Your task to perform on an android device: add a label to a message in the gmail app Image 0: 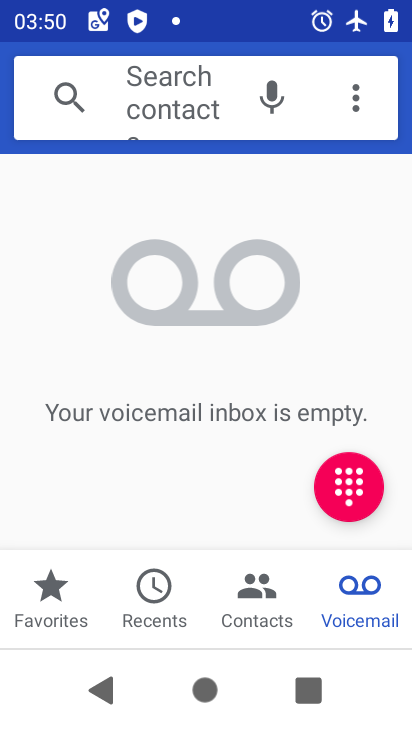
Step 0: press home button
Your task to perform on an android device: add a label to a message in the gmail app Image 1: 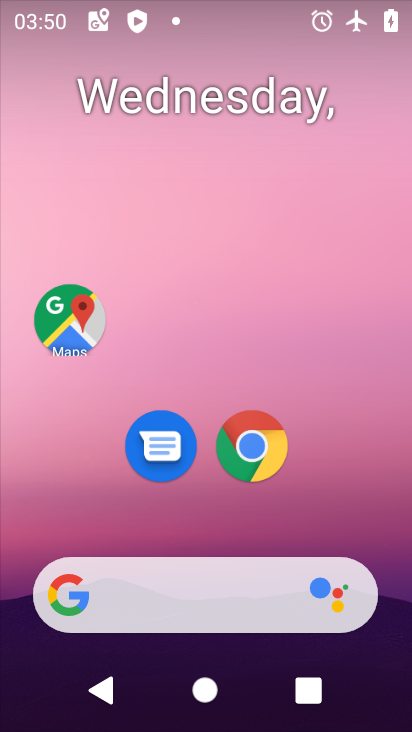
Step 1: drag from (215, 513) to (223, 230)
Your task to perform on an android device: add a label to a message in the gmail app Image 2: 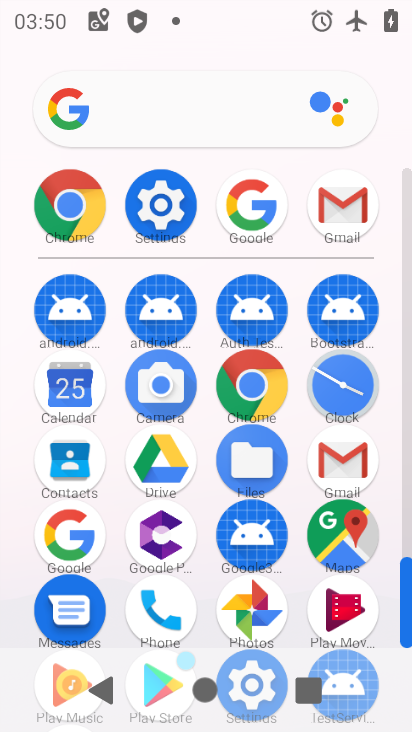
Step 2: click (319, 454)
Your task to perform on an android device: add a label to a message in the gmail app Image 3: 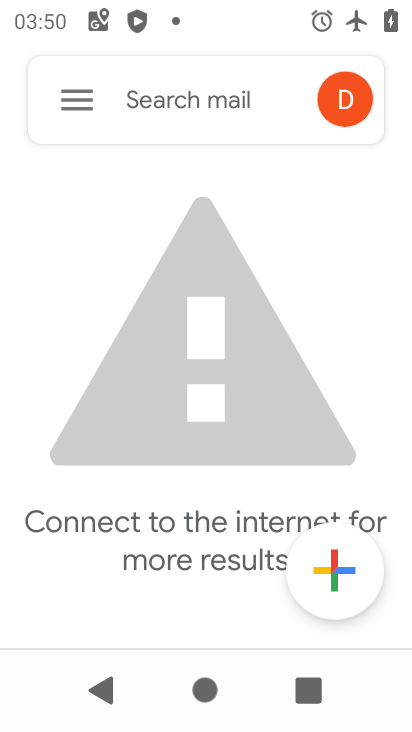
Step 3: click (84, 102)
Your task to perform on an android device: add a label to a message in the gmail app Image 4: 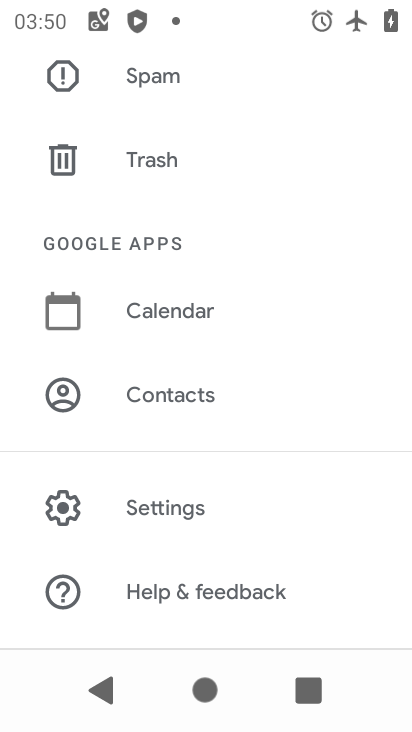
Step 4: drag from (191, 150) to (215, 513)
Your task to perform on an android device: add a label to a message in the gmail app Image 5: 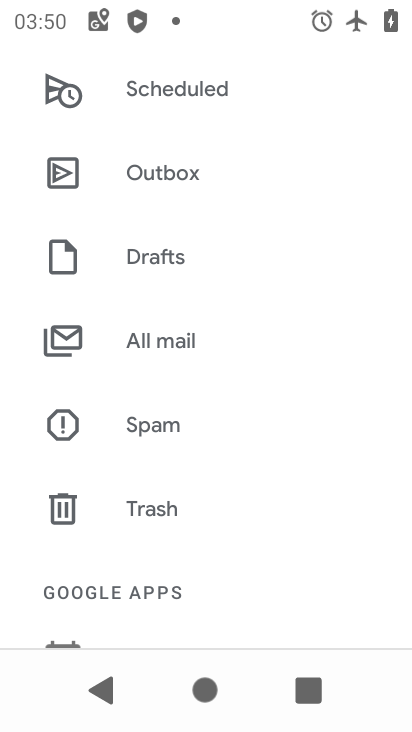
Step 5: click (159, 340)
Your task to perform on an android device: add a label to a message in the gmail app Image 6: 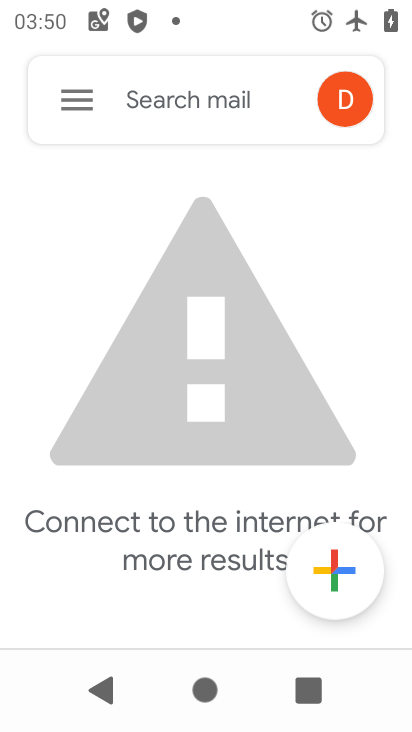
Step 6: task complete